Your task to perform on an android device: check google app version Image 0: 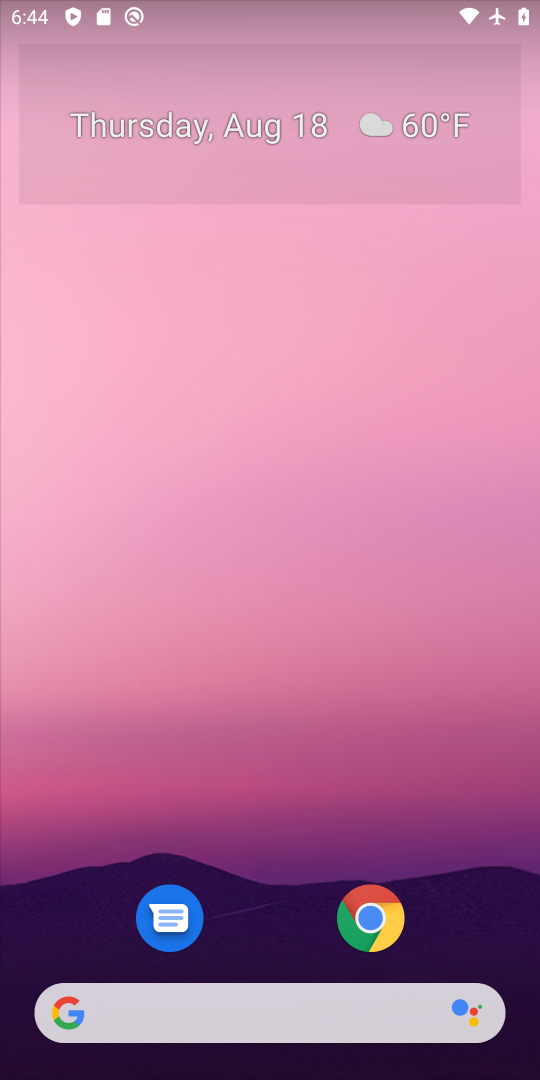
Step 0: press home button
Your task to perform on an android device: check google app version Image 1: 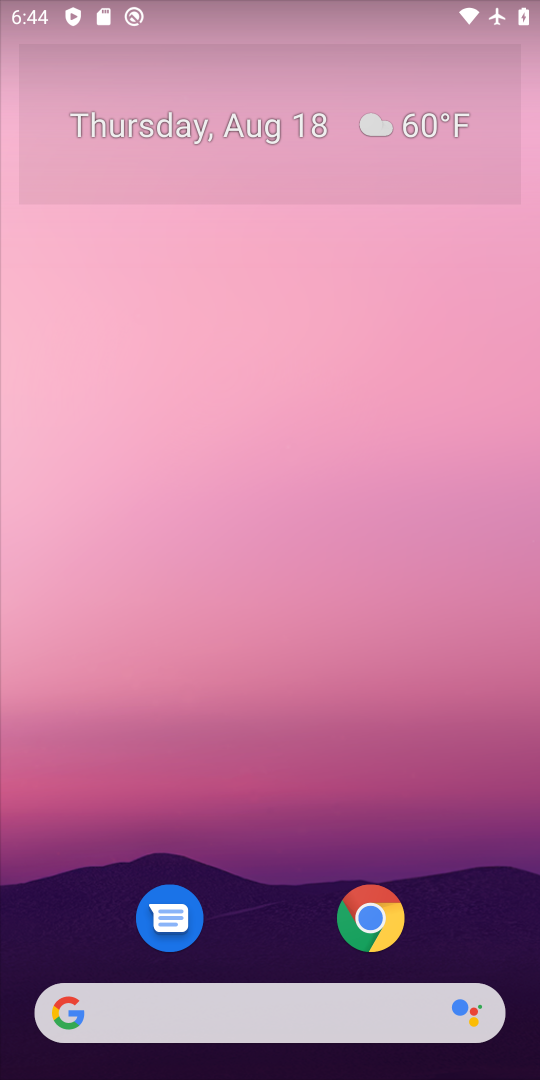
Step 1: drag from (251, 572) to (275, 144)
Your task to perform on an android device: check google app version Image 2: 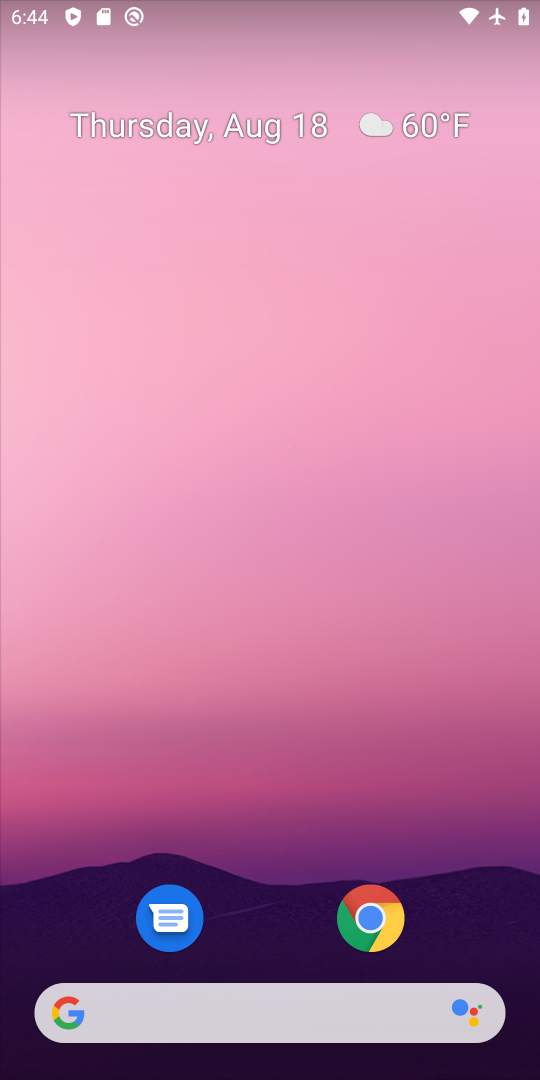
Step 2: drag from (282, 931) to (294, 109)
Your task to perform on an android device: check google app version Image 3: 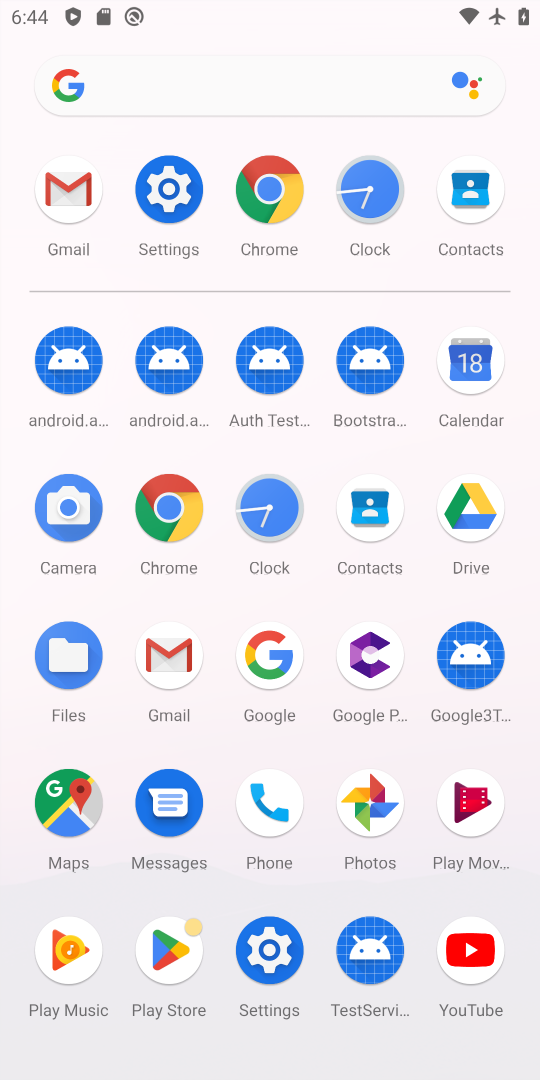
Step 3: click (266, 654)
Your task to perform on an android device: check google app version Image 4: 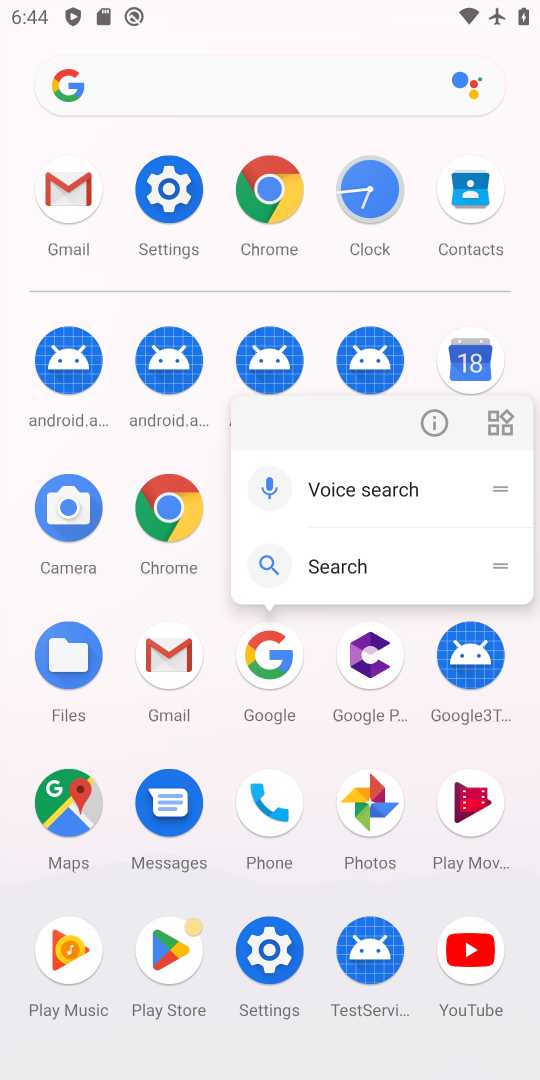
Step 4: click (442, 419)
Your task to perform on an android device: check google app version Image 5: 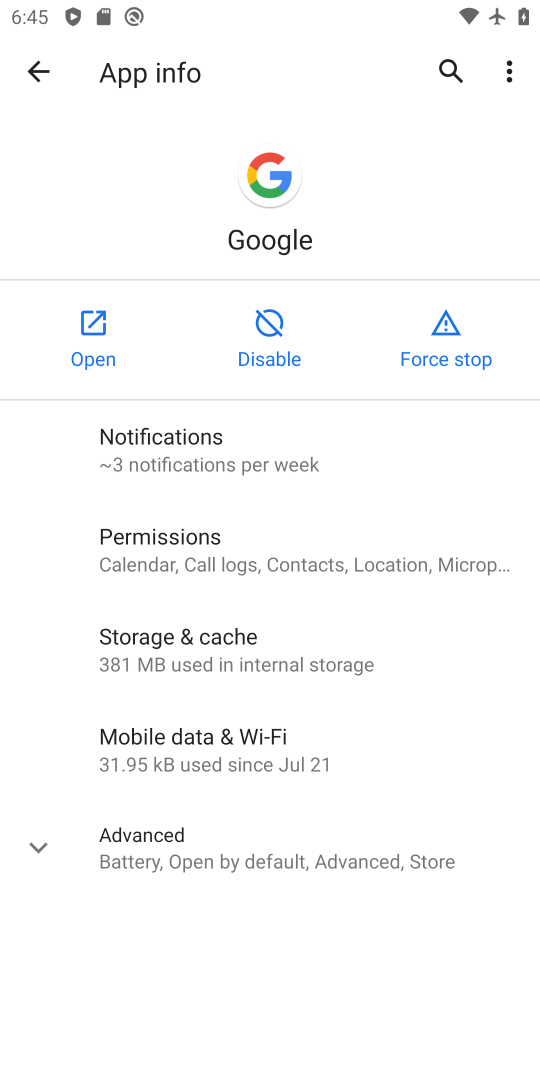
Step 5: click (138, 861)
Your task to perform on an android device: check google app version Image 6: 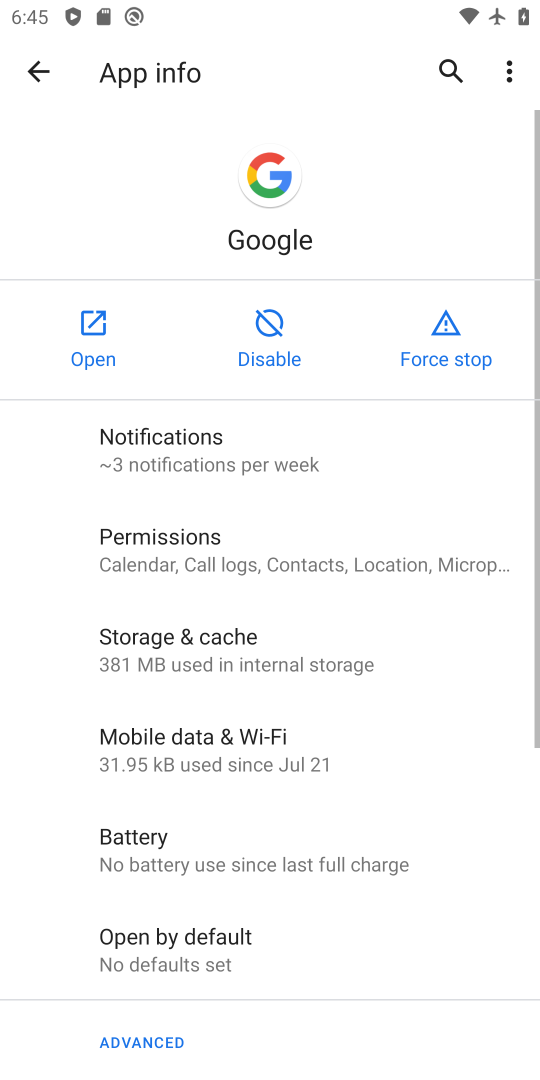
Step 6: task complete